Your task to perform on an android device: open wifi settings Image 0: 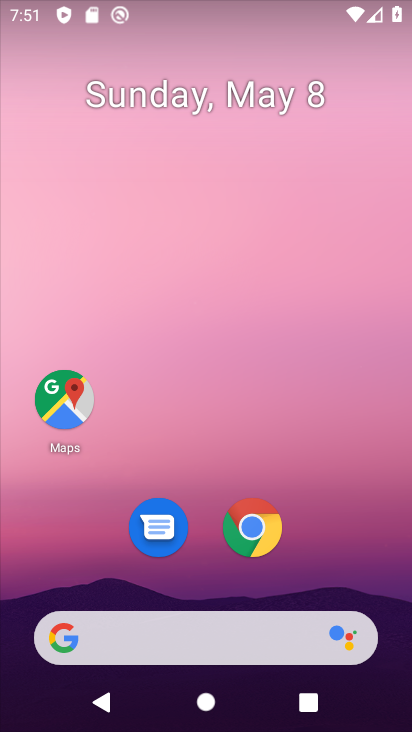
Step 0: drag from (329, 586) to (321, 19)
Your task to perform on an android device: open wifi settings Image 1: 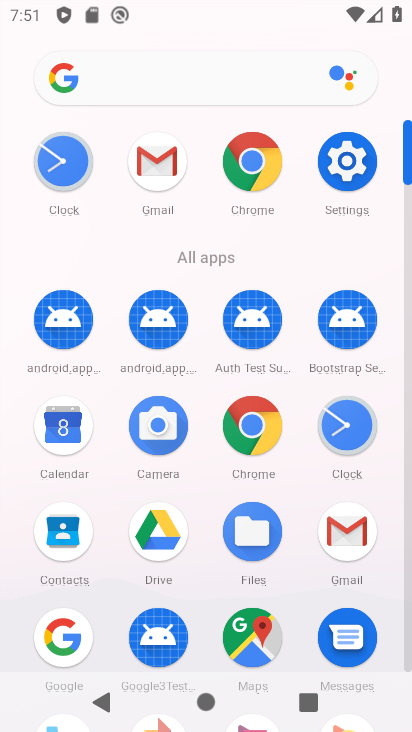
Step 1: click (349, 160)
Your task to perform on an android device: open wifi settings Image 2: 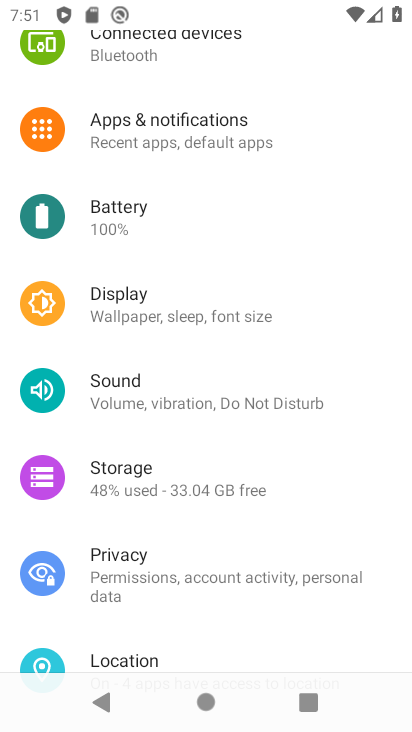
Step 2: drag from (285, 130) to (264, 561)
Your task to perform on an android device: open wifi settings Image 3: 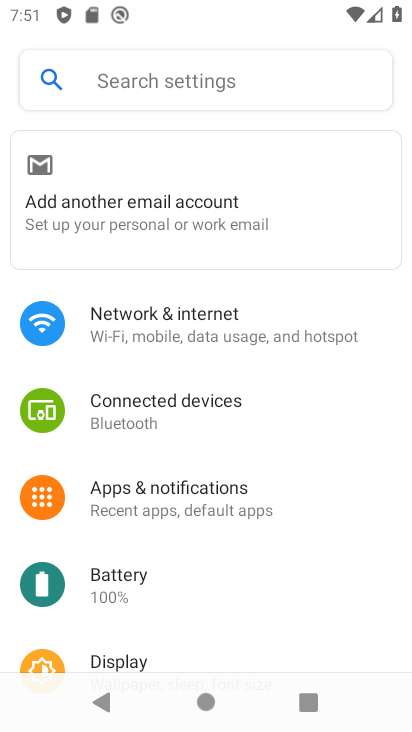
Step 3: click (265, 314)
Your task to perform on an android device: open wifi settings Image 4: 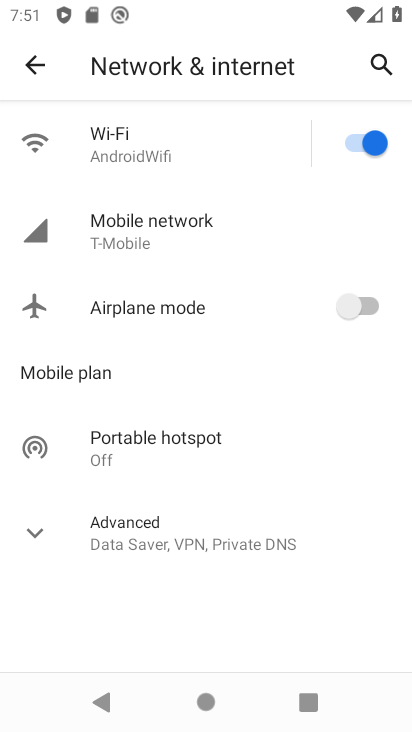
Step 4: click (136, 127)
Your task to perform on an android device: open wifi settings Image 5: 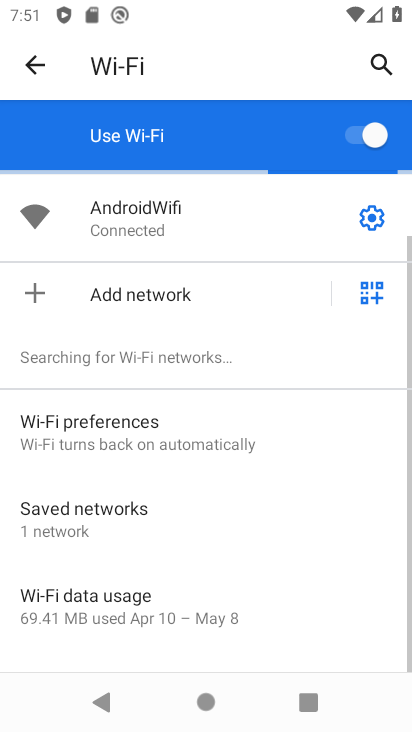
Step 5: task complete